Your task to perform on an android device: Go to privacy settings Image 0: 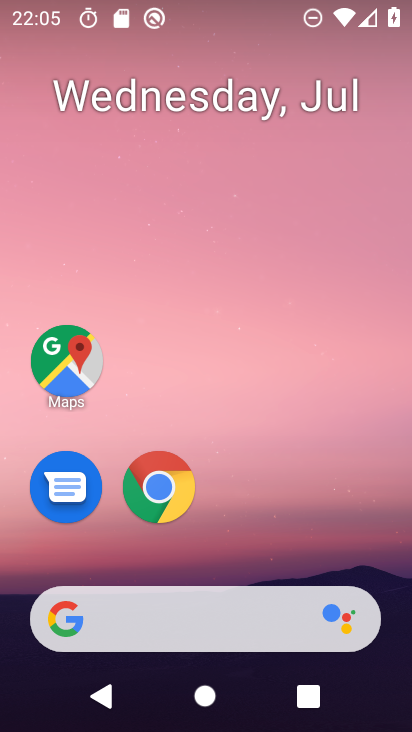
Step 0: drag from (362, 545) to (369, 125)
Your task to perform on an android device: Go to privacy settings Image 1: 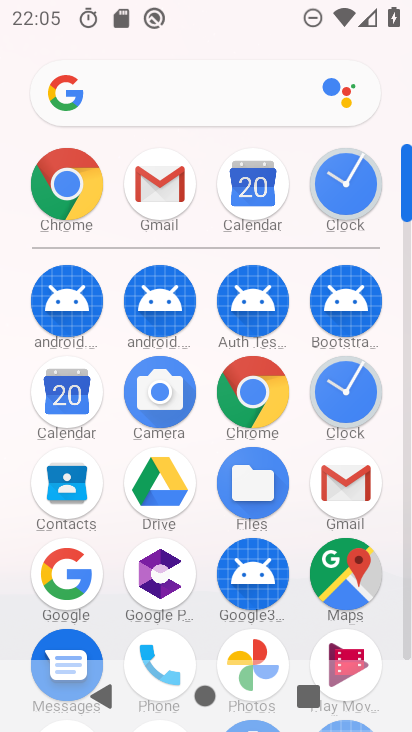
Step 1: drag from (396, 526) to (406, 246)
Your task to perform on an android device: Go to privacy settings Image 2: 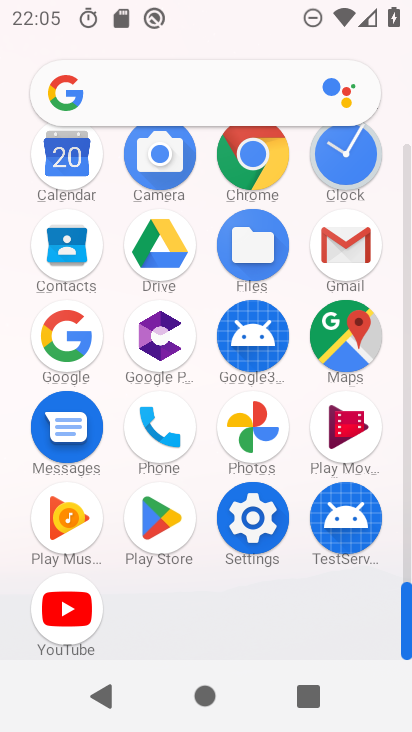
Step 2: click (260, 509)
Your task to perform on an android device: Go to privacy settings Image 3: 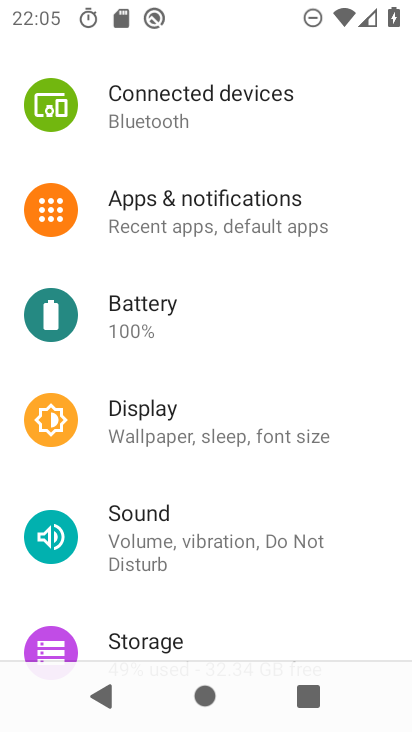
Step 3: drag from (342, 294) to (344, 393)
Your task to perform on an android device: Go to privacy settings Image 4: 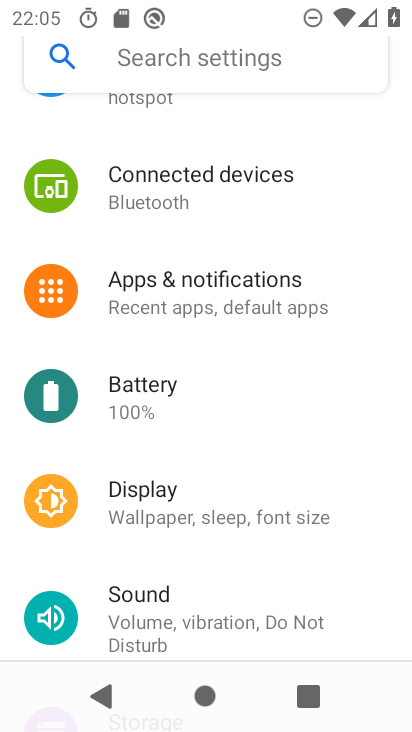
Step 4: drag from (356, 237) to (363, 408)
Your task to perform on an android device: Go to privacy settings Image 5: 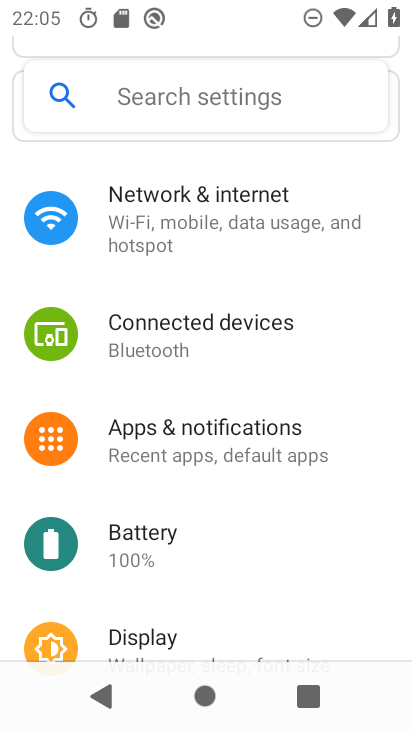
Step 5: drag from (357, 276) to (357, 413)
Your task to perform on an android device: Go to privacy settings Image 6: 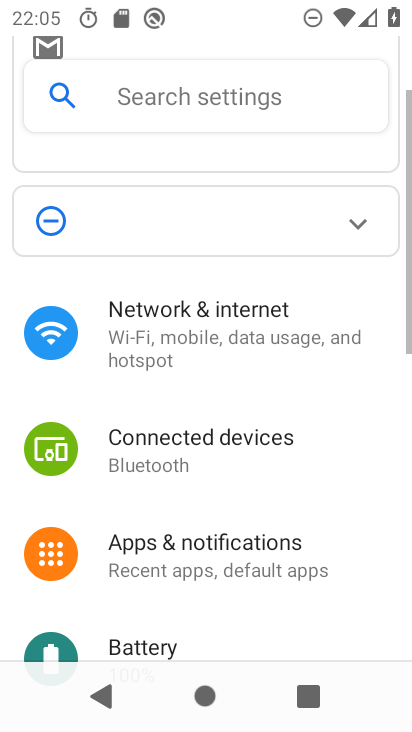
Step 6: drag from (352, 448) to (350, 372)
Your task to perform on an android device: Go to privacy settings Image 7: 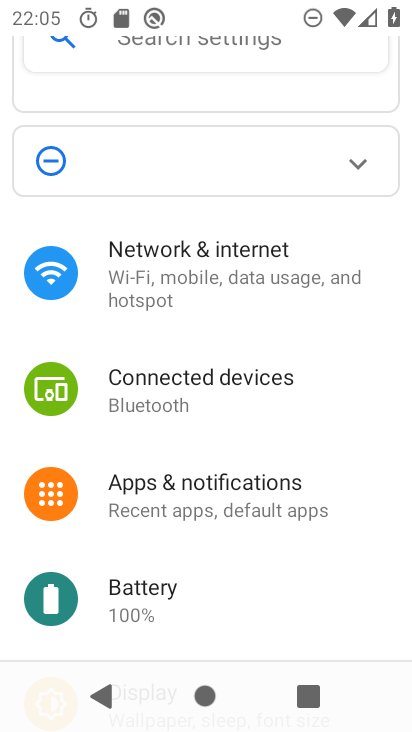
Step 7: drag from (350, 453) to (354, 394)
Your task to perform on an android device: Go to privacy settings Image 8: 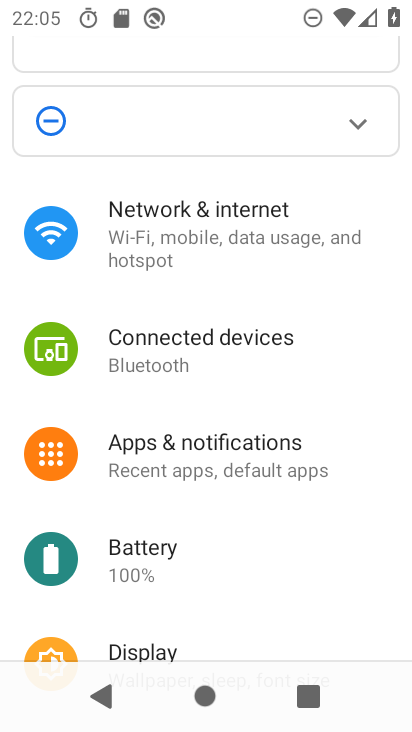
Step 8: drag from (354, 472) to (357, 394)
Your task to perform on an android device: Go to privacy settings Image 9: 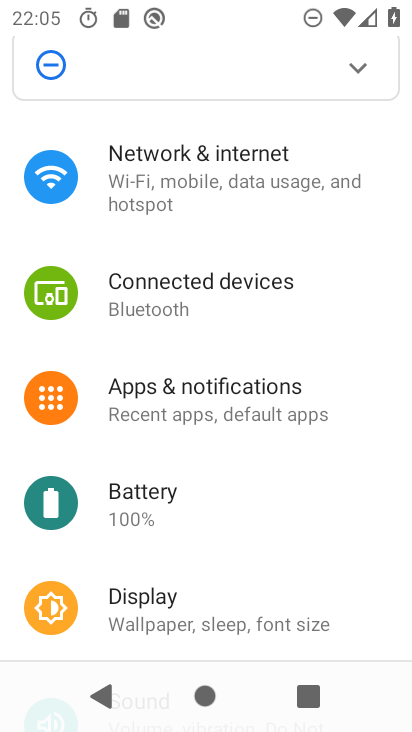
Step 9: drag from (361, 473) to (361, 390)
Your task to perform on an android device: Go to privacy settings Image 10: 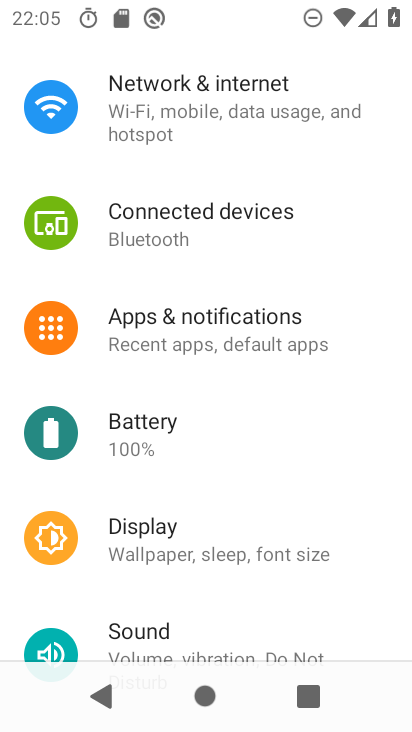
Step 10: drag from (360, 491) to (359, 406)
Your task to perform on an android device: Go to privacy settings Image 11: 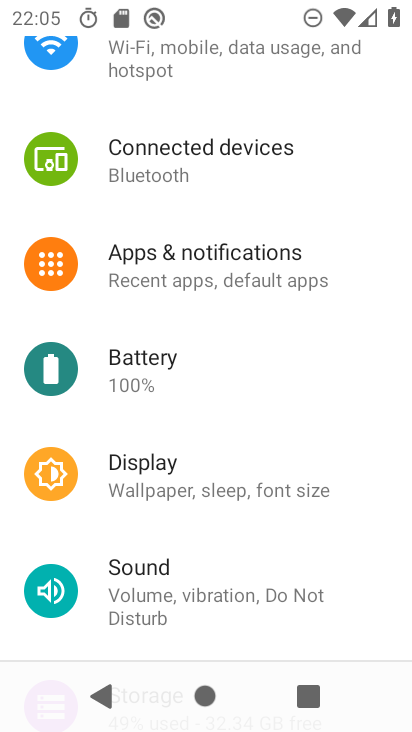
Step 11: drag from (358, 508) to (360, 420)
Your task to perform on an android device: Go to privacy settings Image 12: 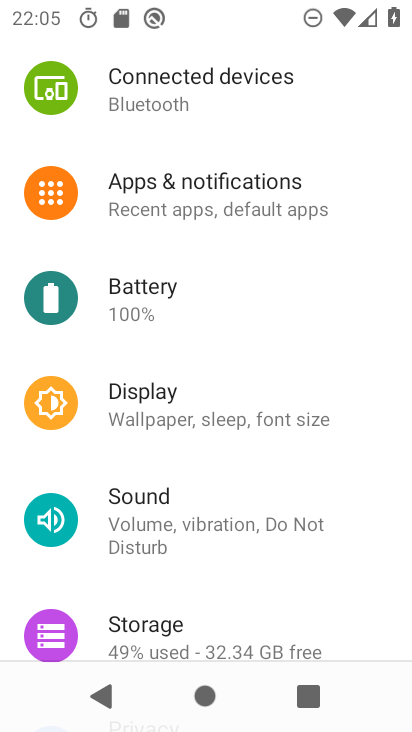
Step 12: drag from (361, 515) to (361, 427)
Your task to perform on an android device: Go to privacy settings Image 13: 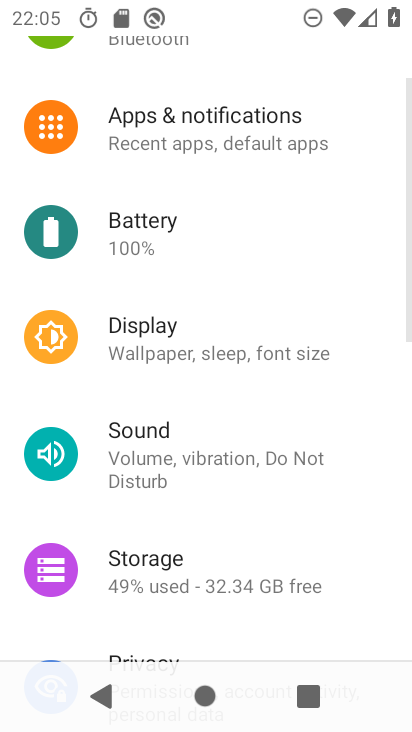
Step 13: drag from (350, 520) to (350, 421)
Your task to perform on an android device: Go to privacy settings Image 14: 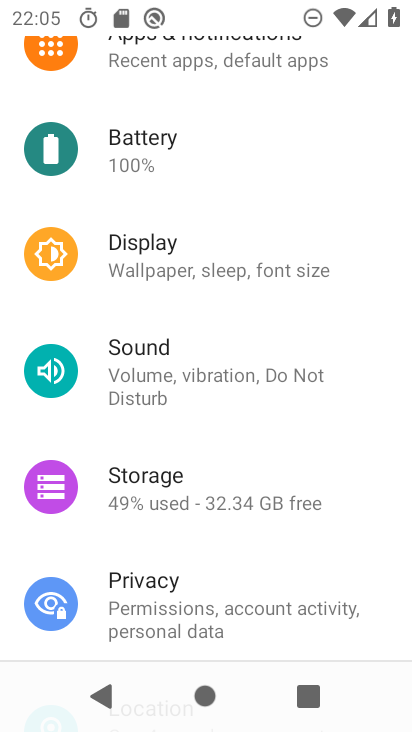
Step 14: drag from (351, 532) to (360, 448)
Your task to perform on an android device: Go to privacy settings Image 15: 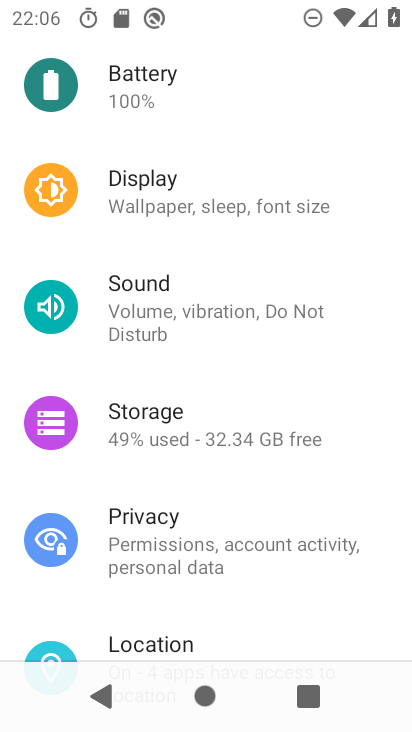
Step 15: drag from (368, 579) to (371, 424)
Your task to perform on an android device: Go to privacy settings Image 16: 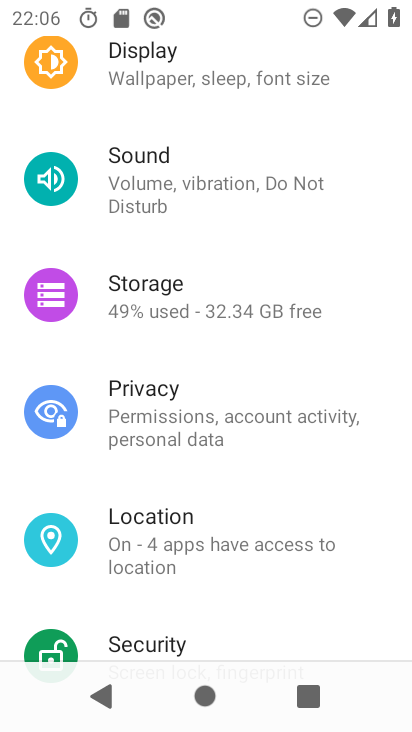
Step 16: click (306, 419)
Your task to perform on an android device: Go to privacy settings Image 17: 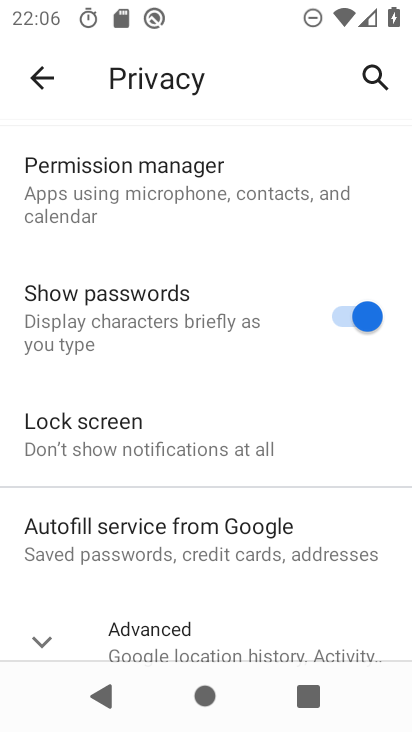
Step 17: task complete